Your task to perform on an android device: Search for asus rog on amazon, select the first entry, add it to the cart, then select checkout. Image 0: 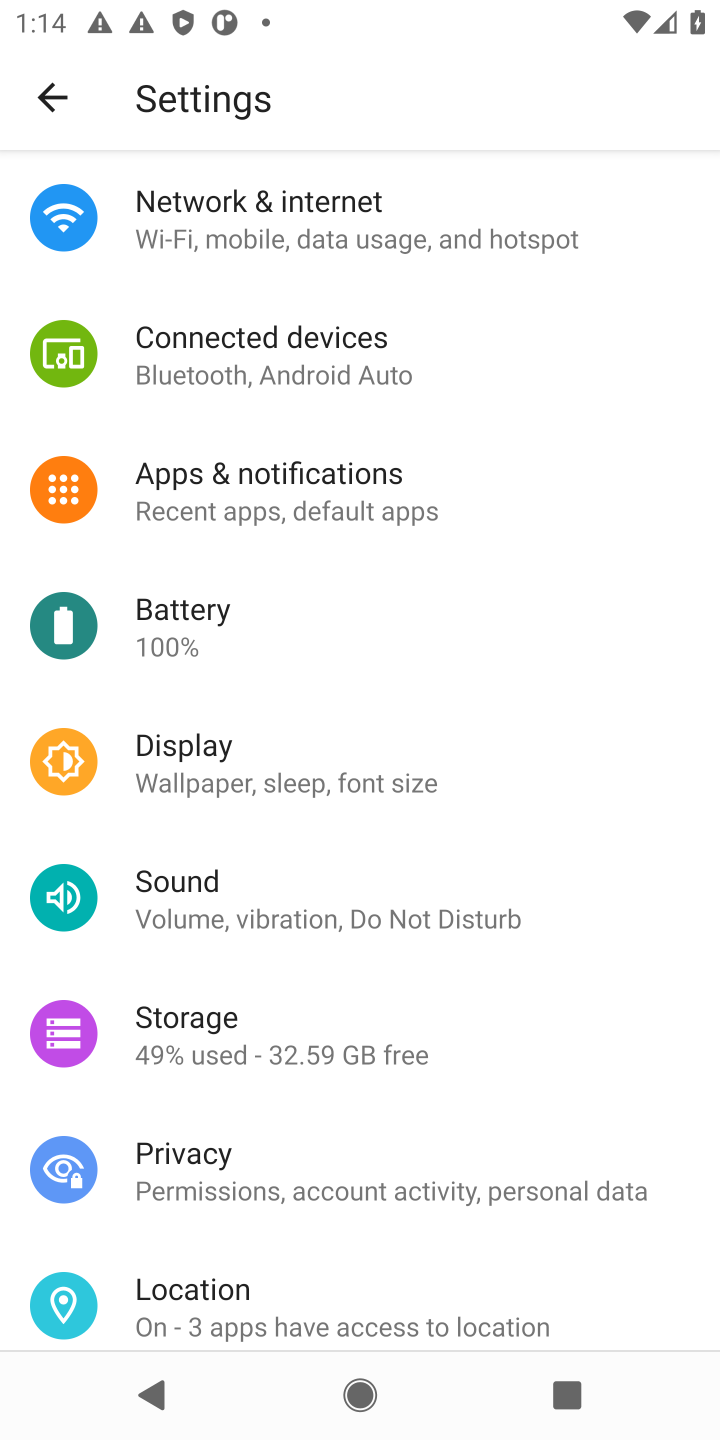
Step 0: press home button
Your task to perform on an android device: Search for asus rog on amazon, select the first entry, add it to the cart, then select checkout. Image 1: 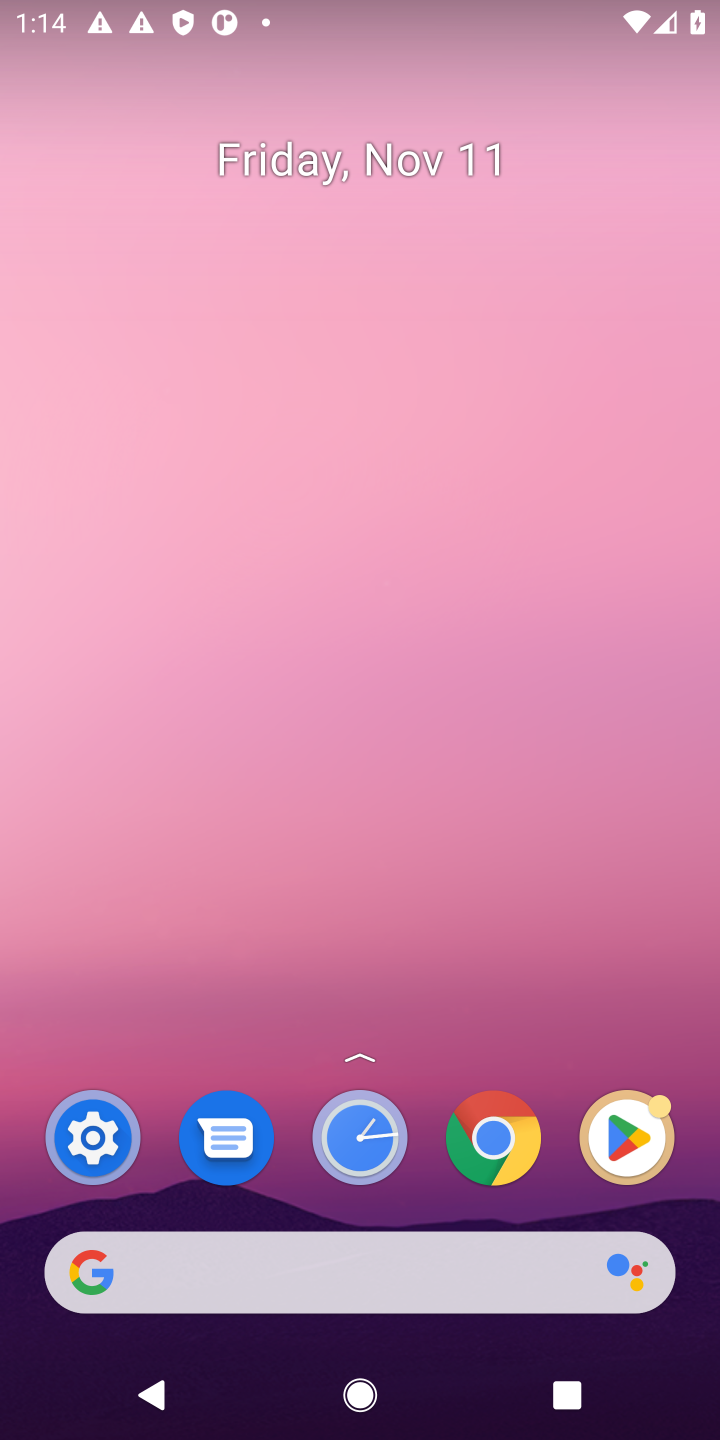
Step 1: click (501, 1125)
Your task to perform on an android device: Search for asus rog on amazon, select the first entry, add it to the cart, then select checkout. Image 2: 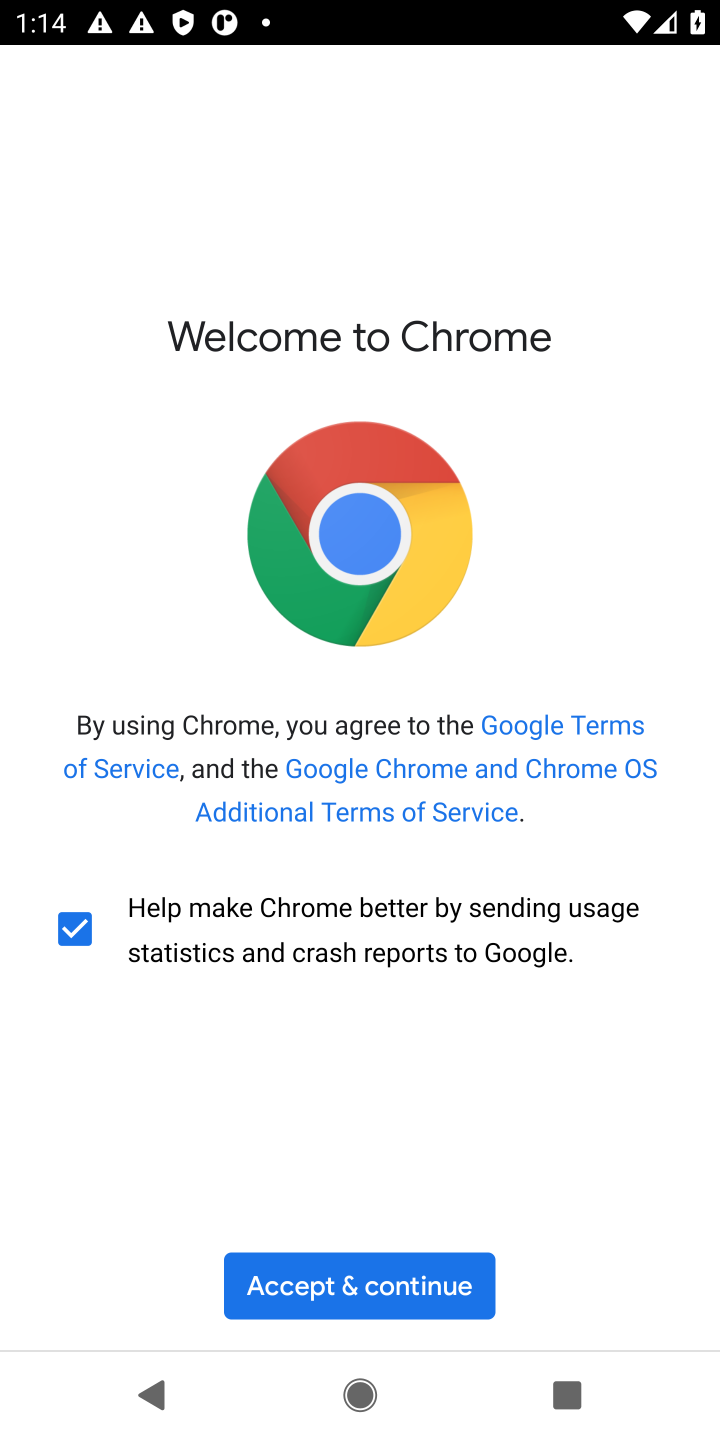
Step 2: click (376, 1264)
Your task to perform on an android device: Search for asus rog on amazon, select the first entry, add it to the cart, then select checkout. Image 3: 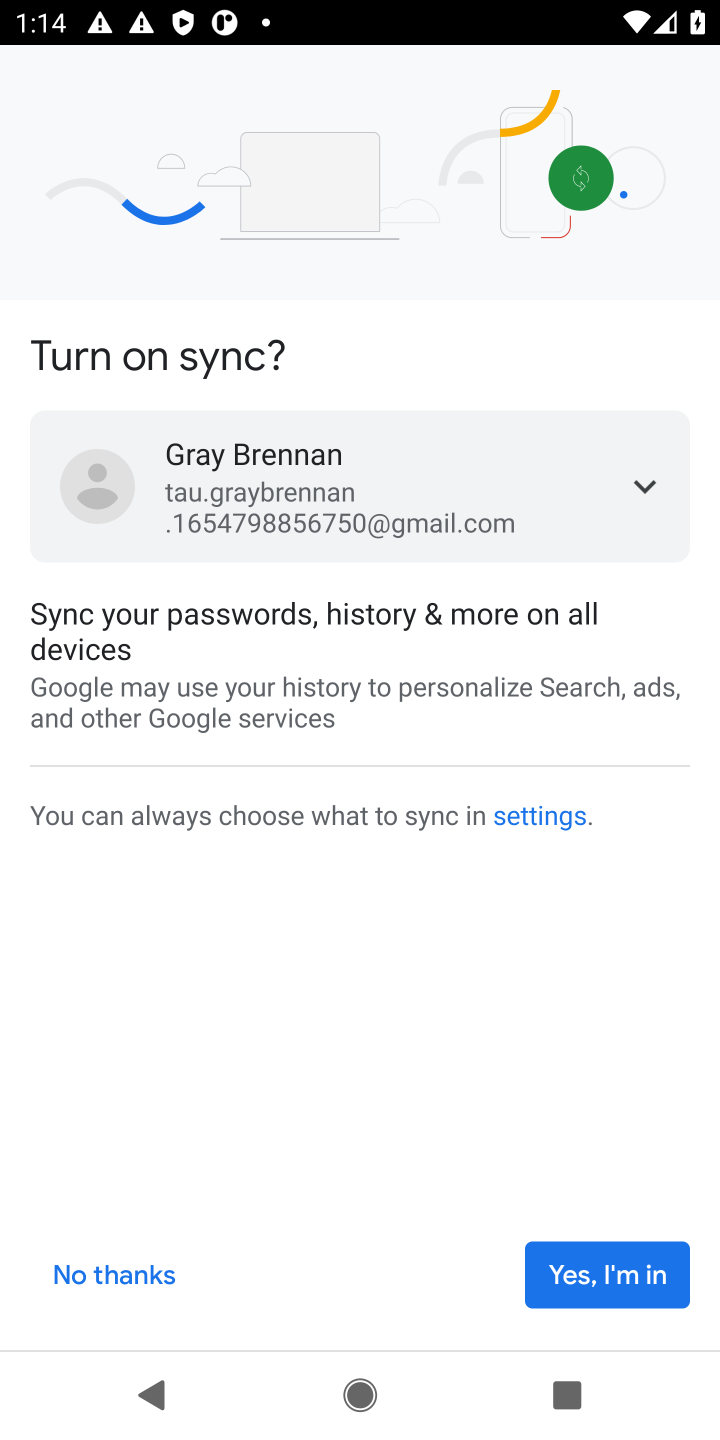
Step 3: click (604, 1279)
Your task to perform on an android device: Search for asus rog on amazon, select the first entry, add it to the cart, then select checkout. Image 4: 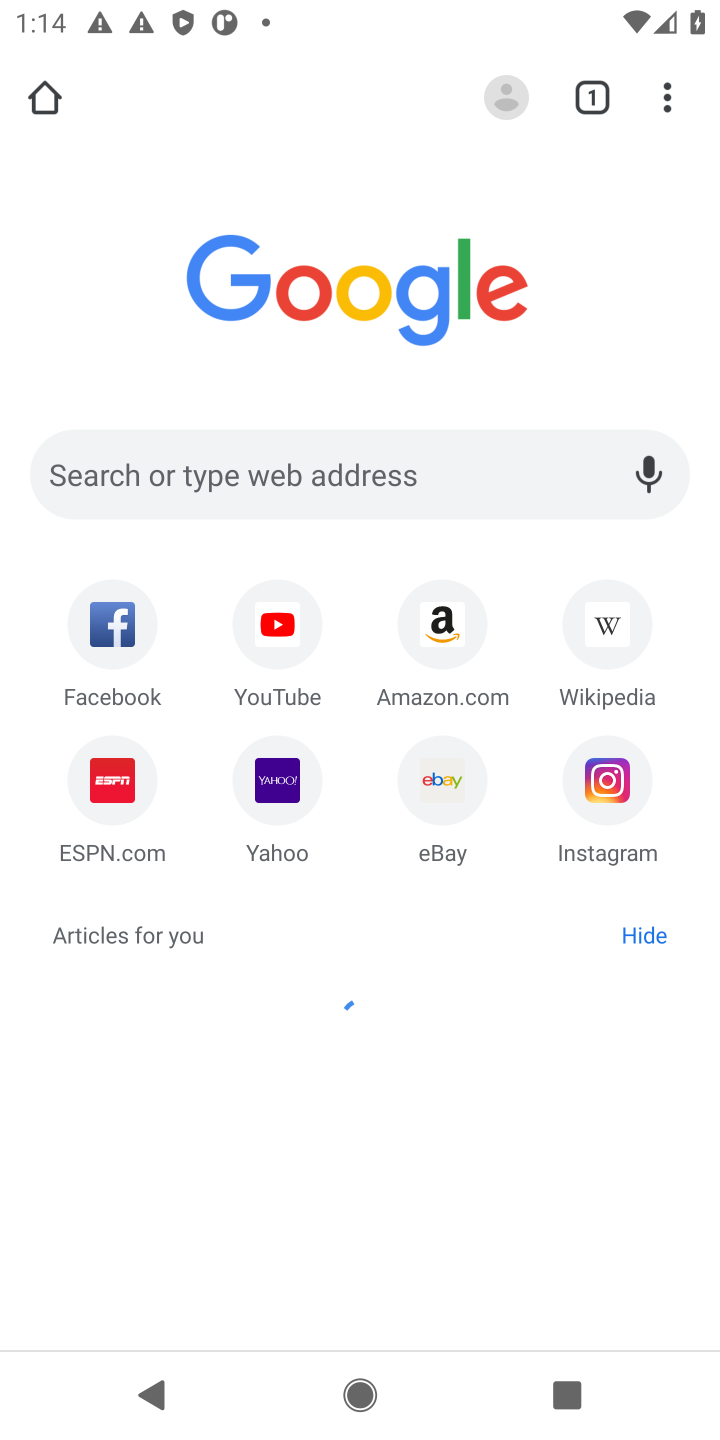
Step 4: click (436, 621)
Your task to perform on an android device: Search for asus rog on amazon, select the first entry, add it to the cart, then select checkout. Image 5: 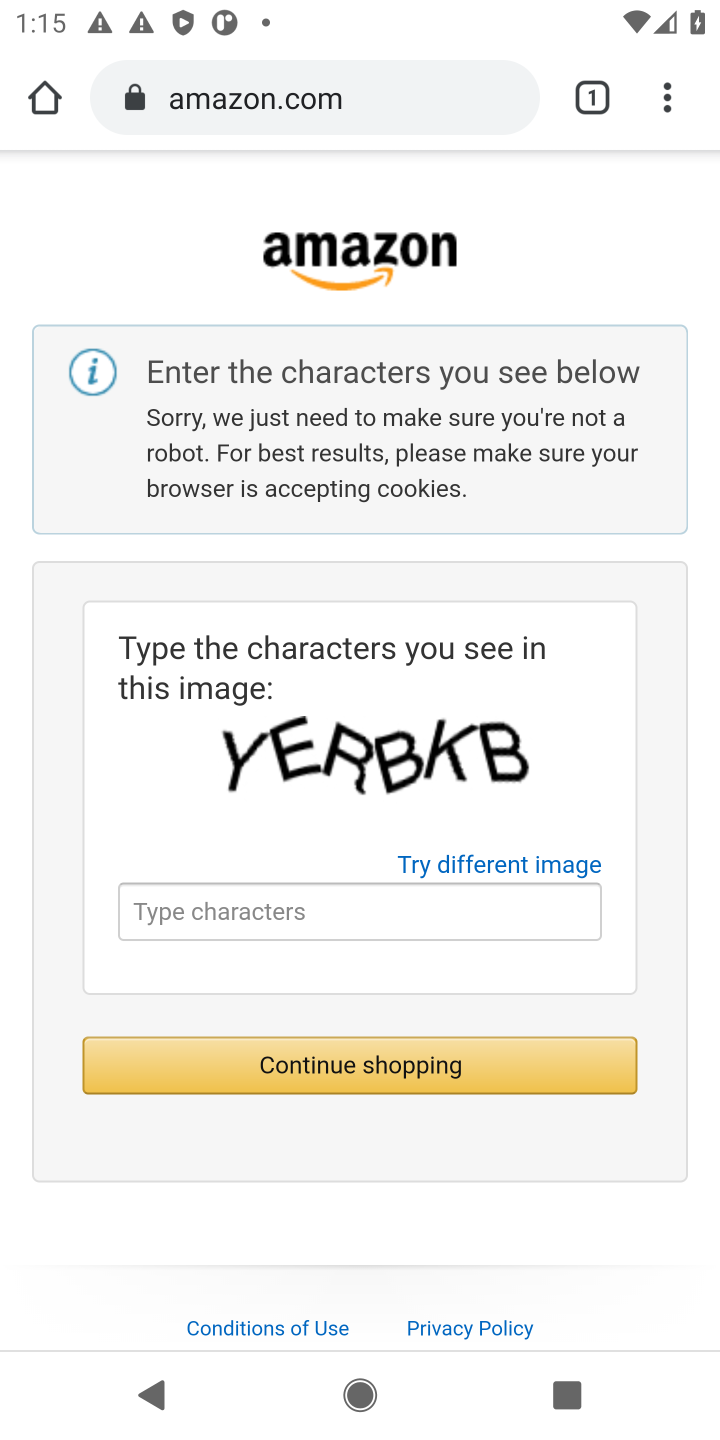
Step 5: click (304, 897)
Your task to perform on an android device: Search for asus rog on amazon, select the first entry, add it to the cart, then select checkout. Image 6: 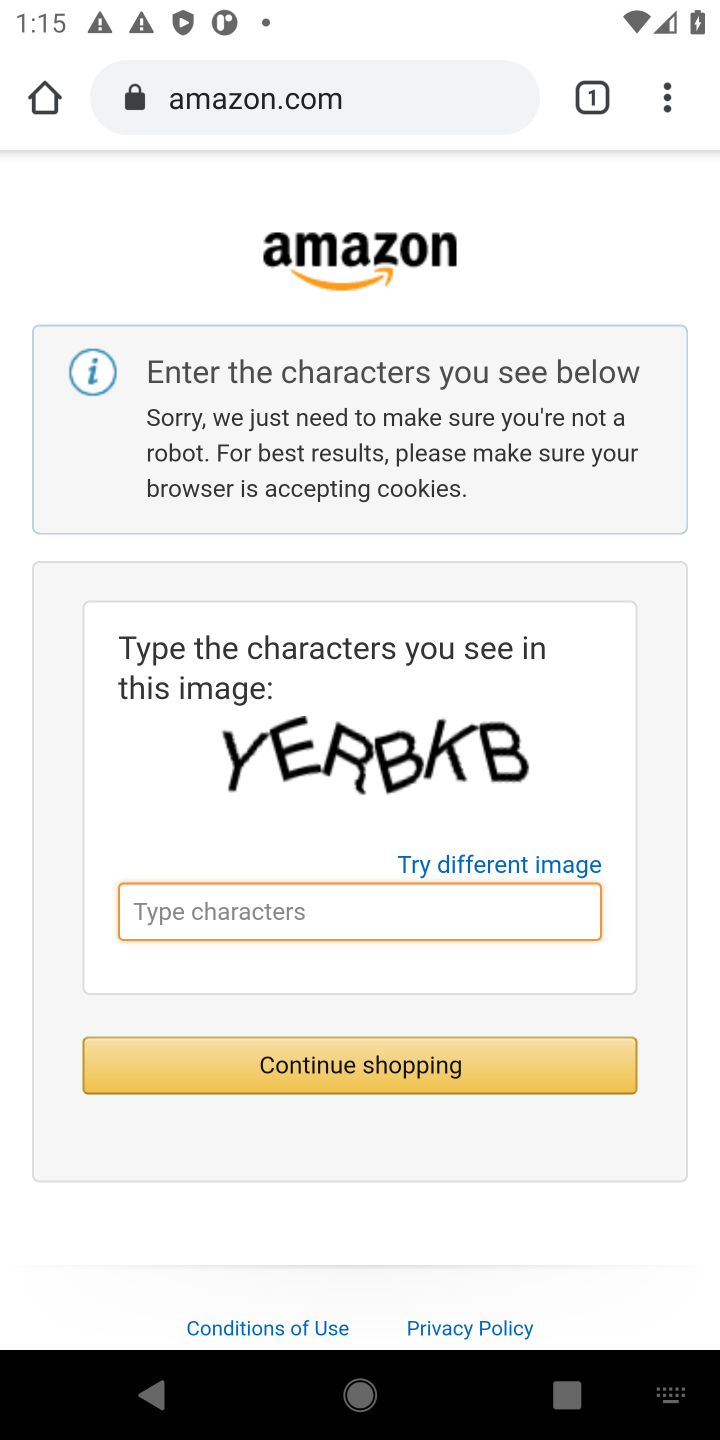
Step 6: type "YERBKB"
Your task to perform on an android device: Search for asus rog on amazon, select the first entry, add it to the cart, then select checkout. Image 7: 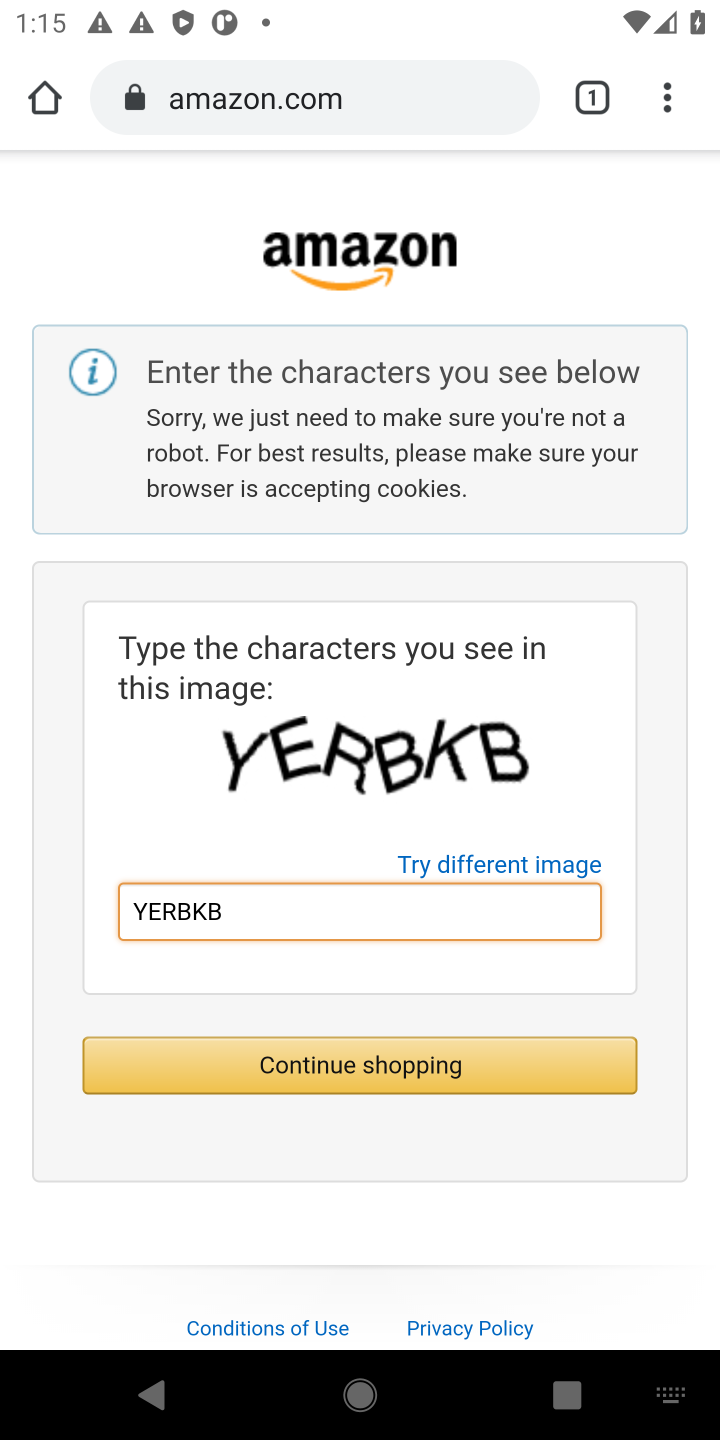
Step 7: click (411, 1067)
Your task to perform on an android device: Search for asus rog on amazon, select the first entry, add it to the cart, then select checkout. Image 8: 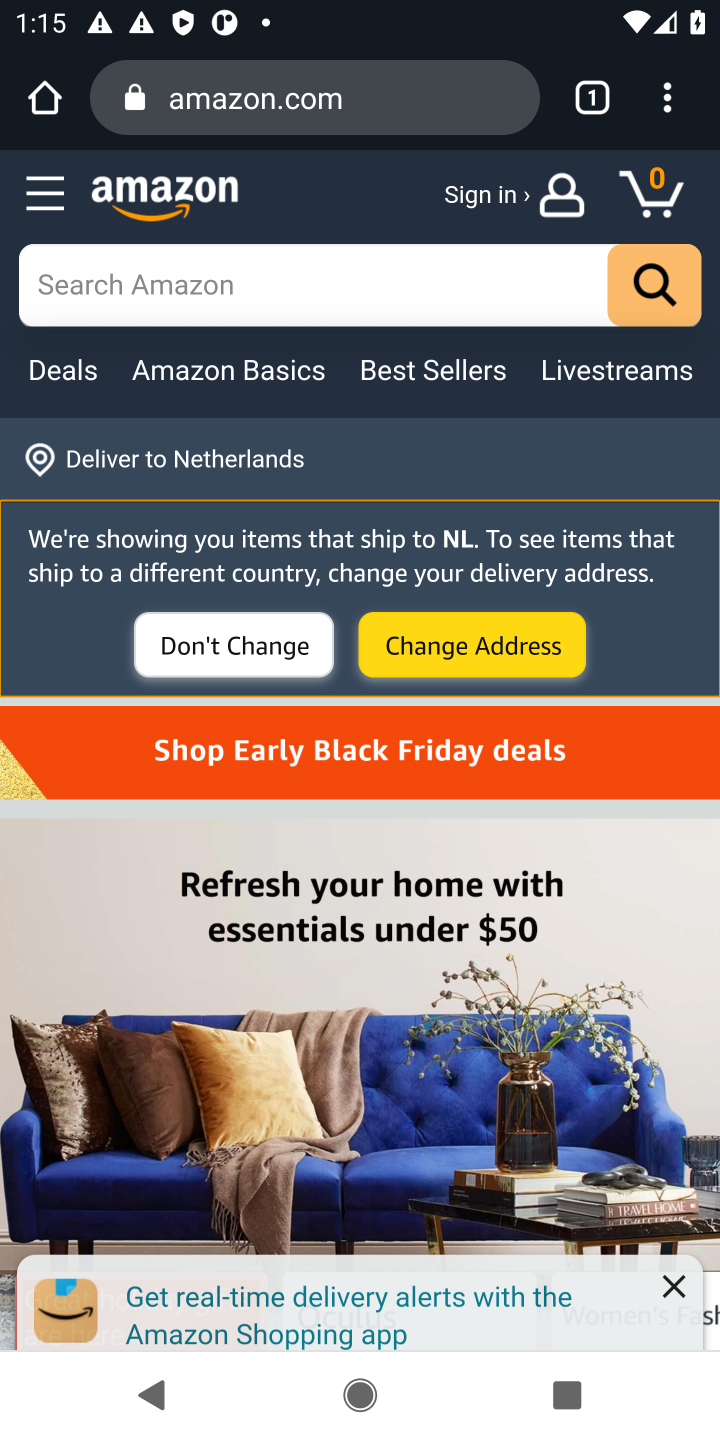
Step 8: click (249, 289)
Your task to perform on an android device: Search for asus rog on amazon, select the first entry, add it to the cart, then select checkout. Image 9: 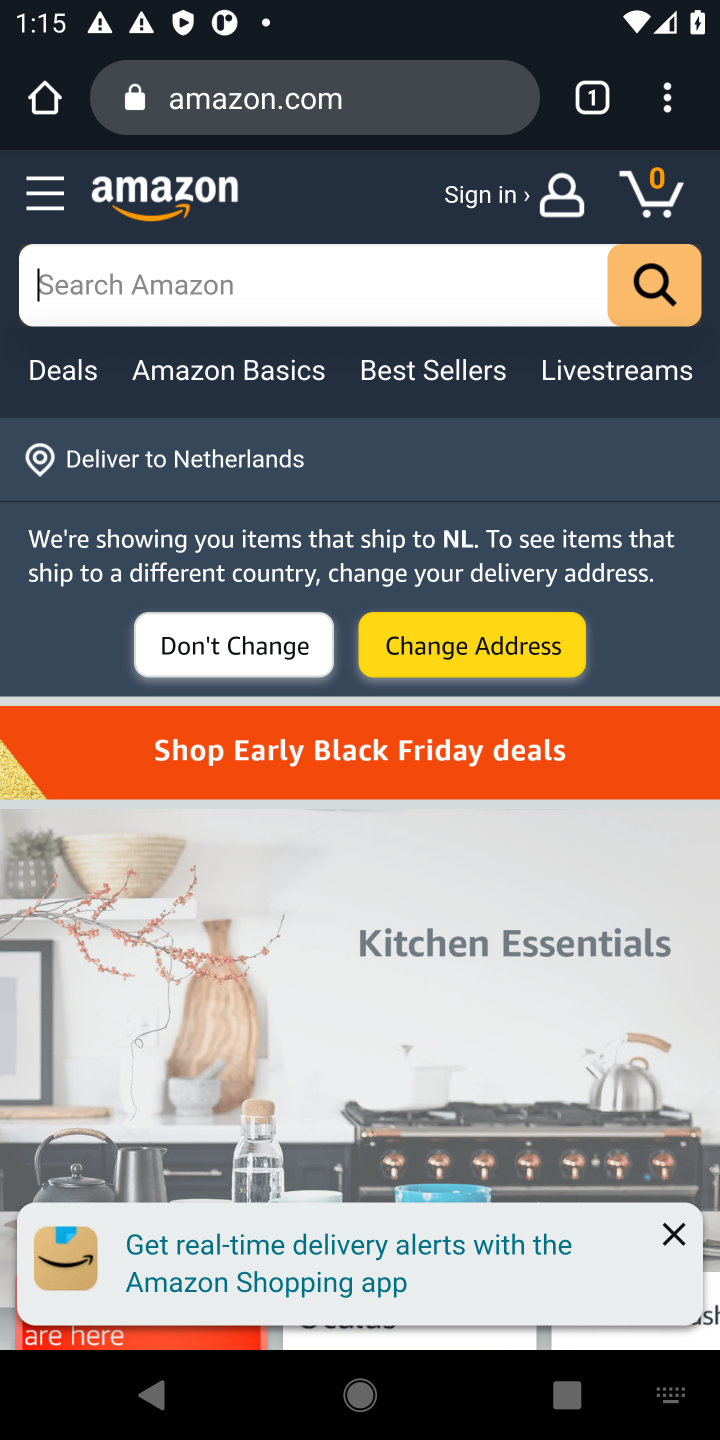
Step 9: type "asus rog"
Your task to perform on an android device: Search for asus rog on amazon, select the first entry, add it to the cart, then select checkout. Image 10: 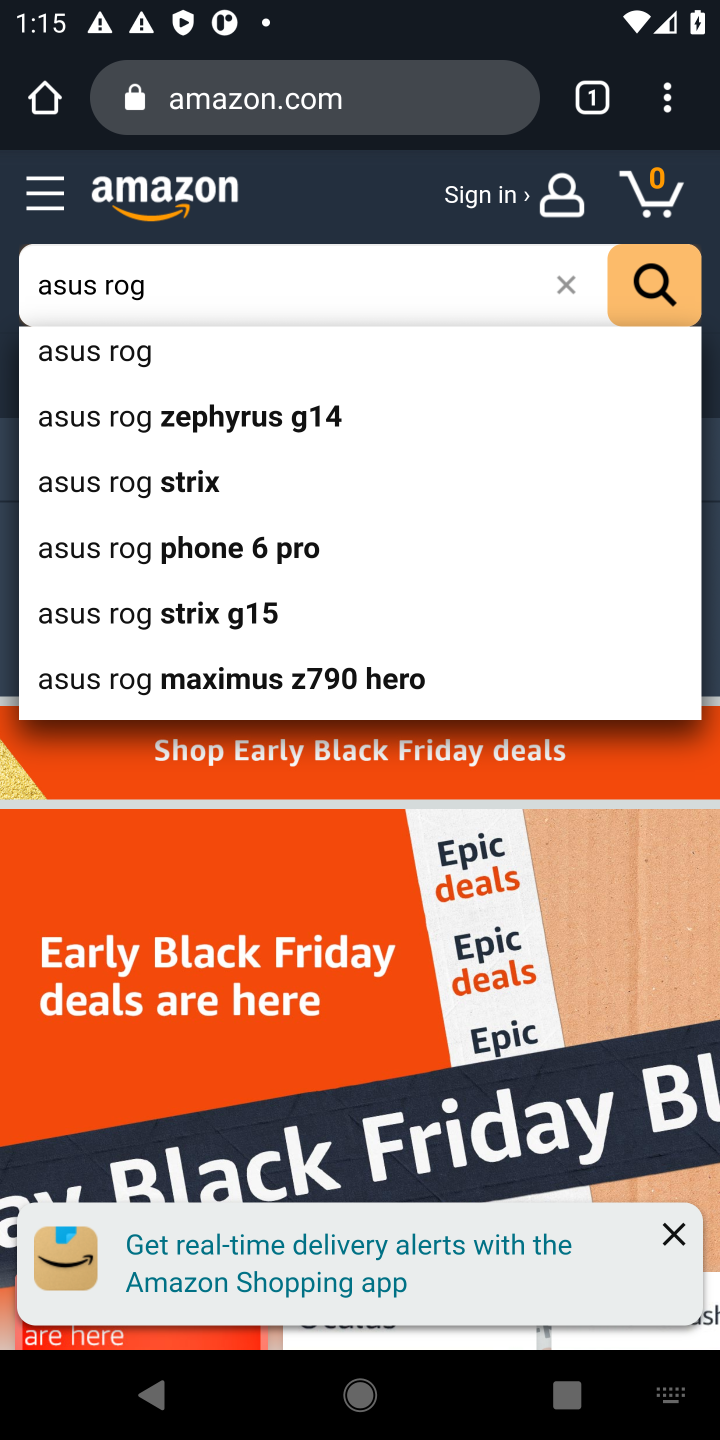
Step 10: click (77, 346)
Your task to perform on an android device: Search for asus rog on amazon, select the first entry, add it to the cart, then select checkout. Image 11: 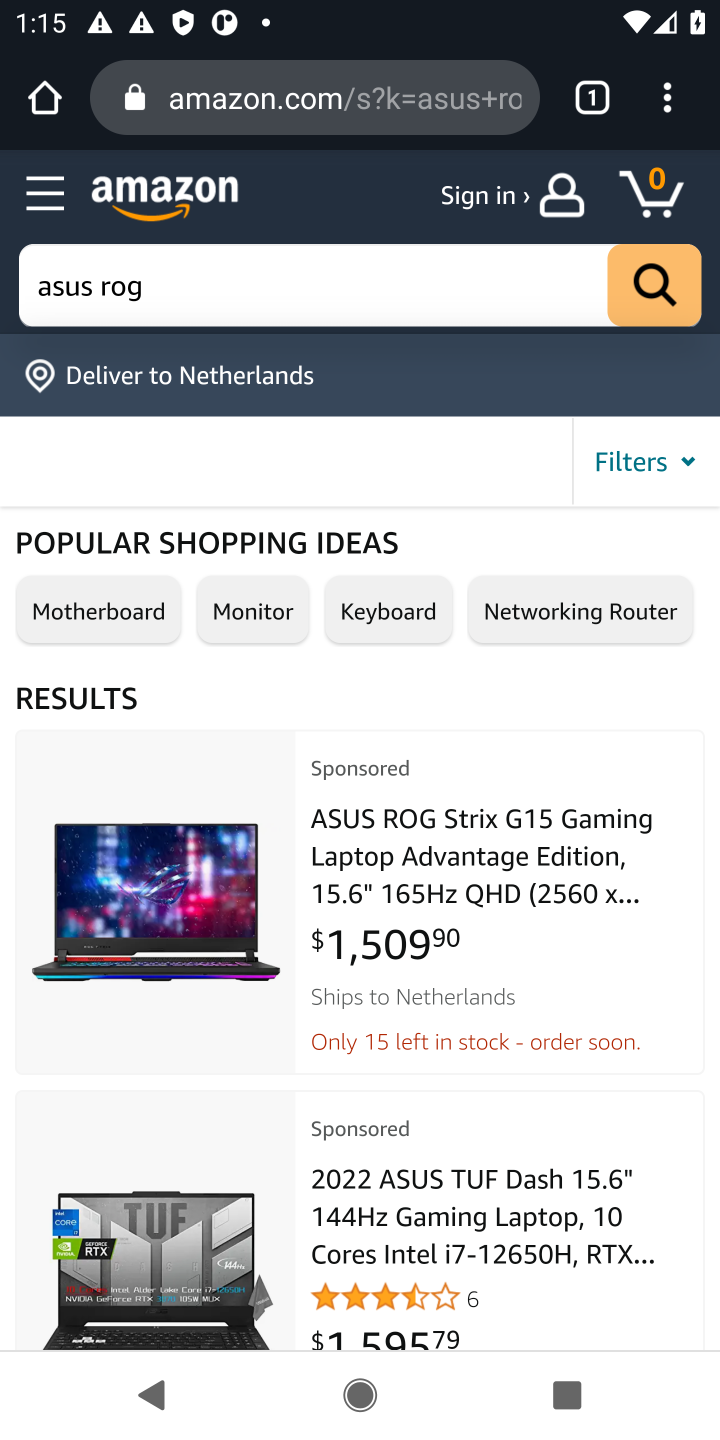
Step 11: click (448, 835)
Your task to perform on an android device: Search for asus rog on amazon, select the first entry, add it to the cart, then select checkout. Image 12: 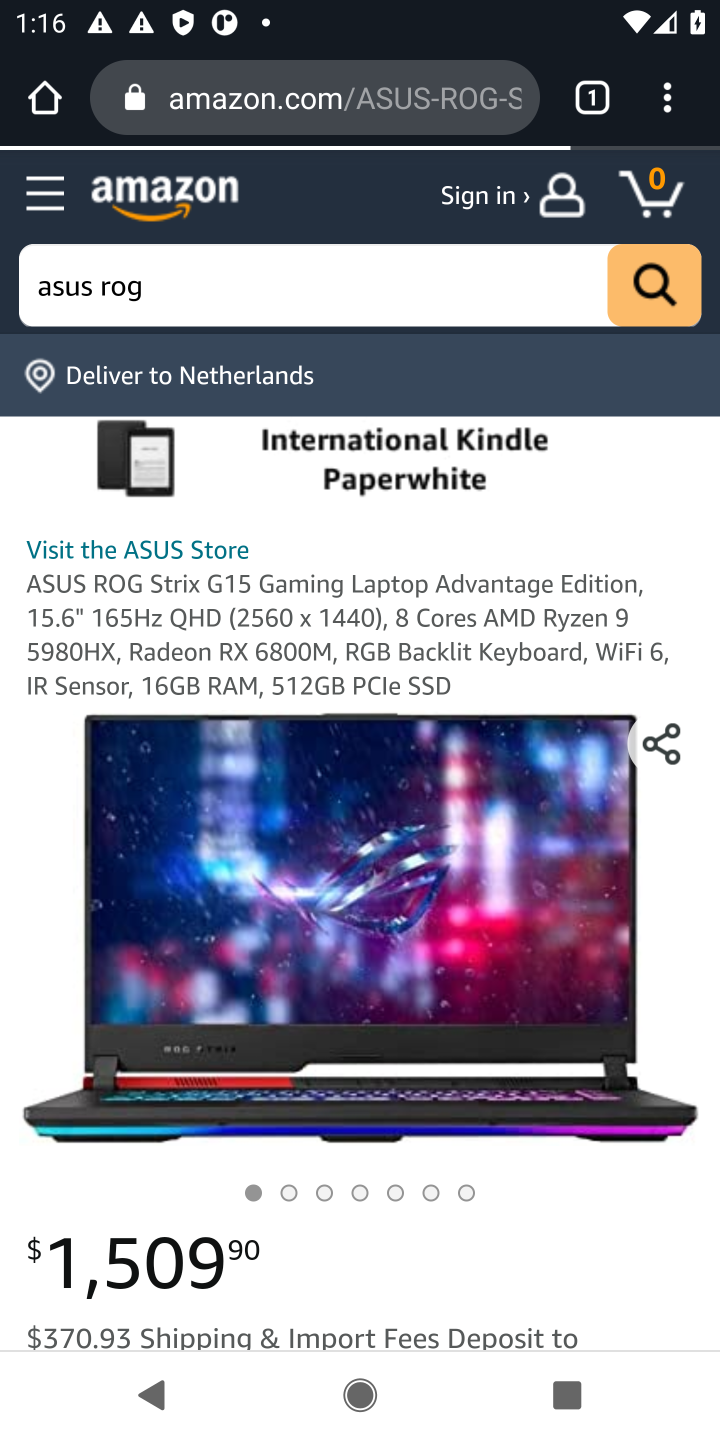
Step 12: drag from (357, 1246) to (535, 308)
Your task to perform on an android device: Search for asus rog on amazon, select the first entry, add it to the cart, then select checkout. Image 13: 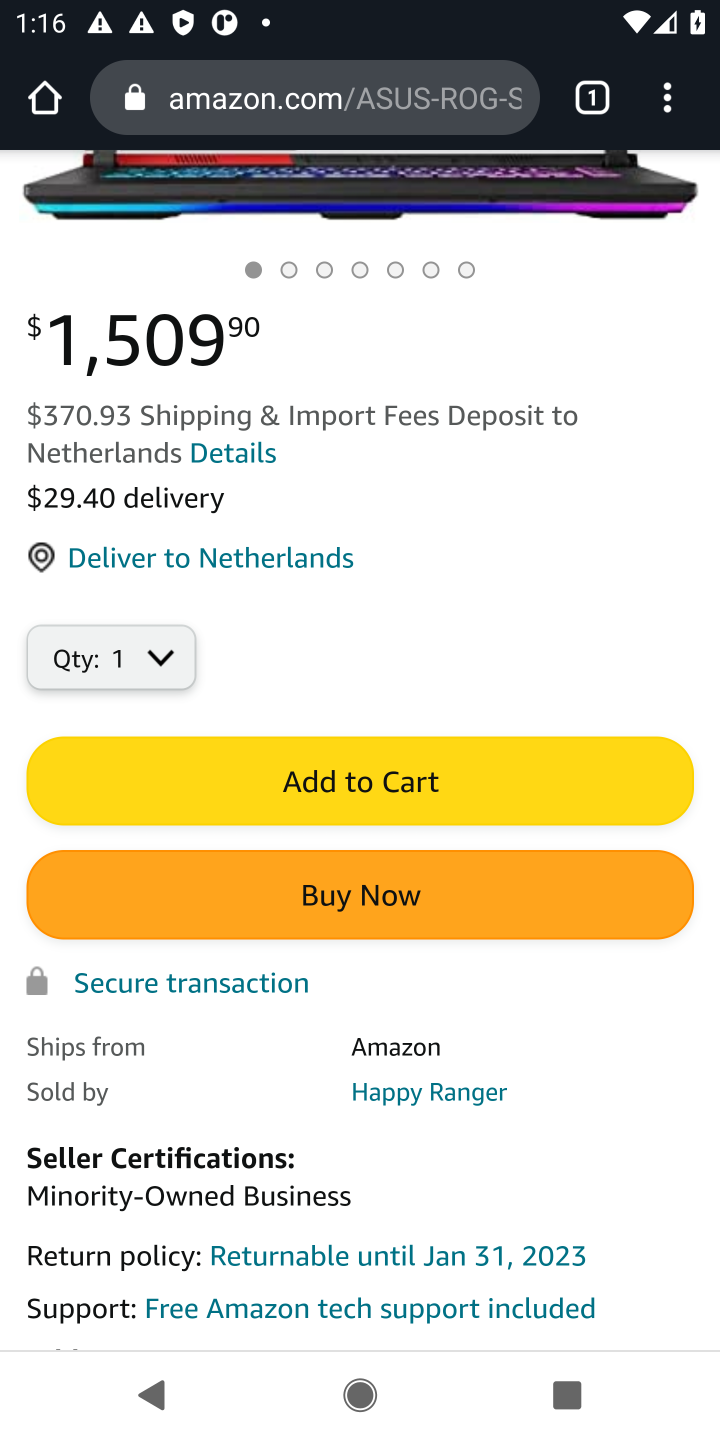
Step 13: click (478, 767)
Your task to perform on an android device: Search for asus rog on amazon, select the first entry, add it to the cart, then select checkout. Image 14: 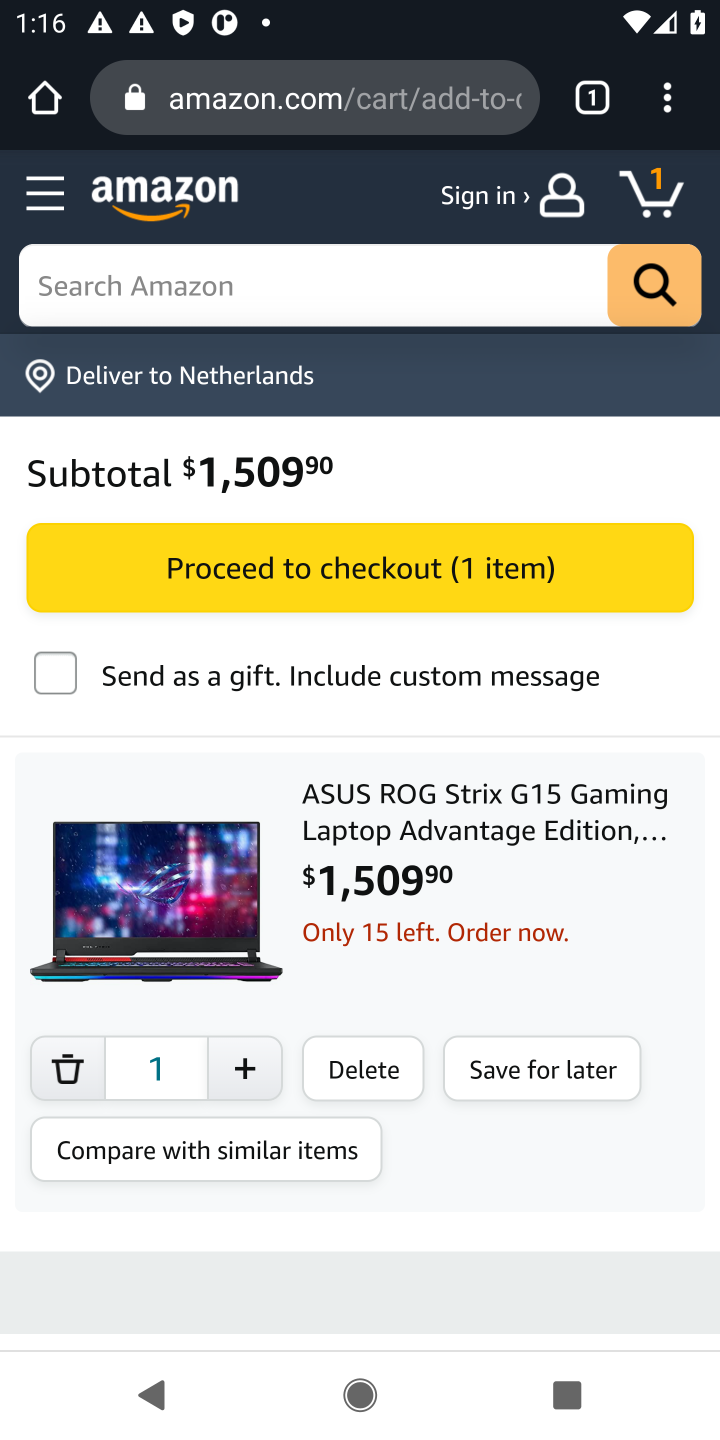
Step 14: click (444, 560)
Your task to perform on an android device: Search for asus rog on amazon, select the first entry, add it to the cart, then select checkout. Image 15: 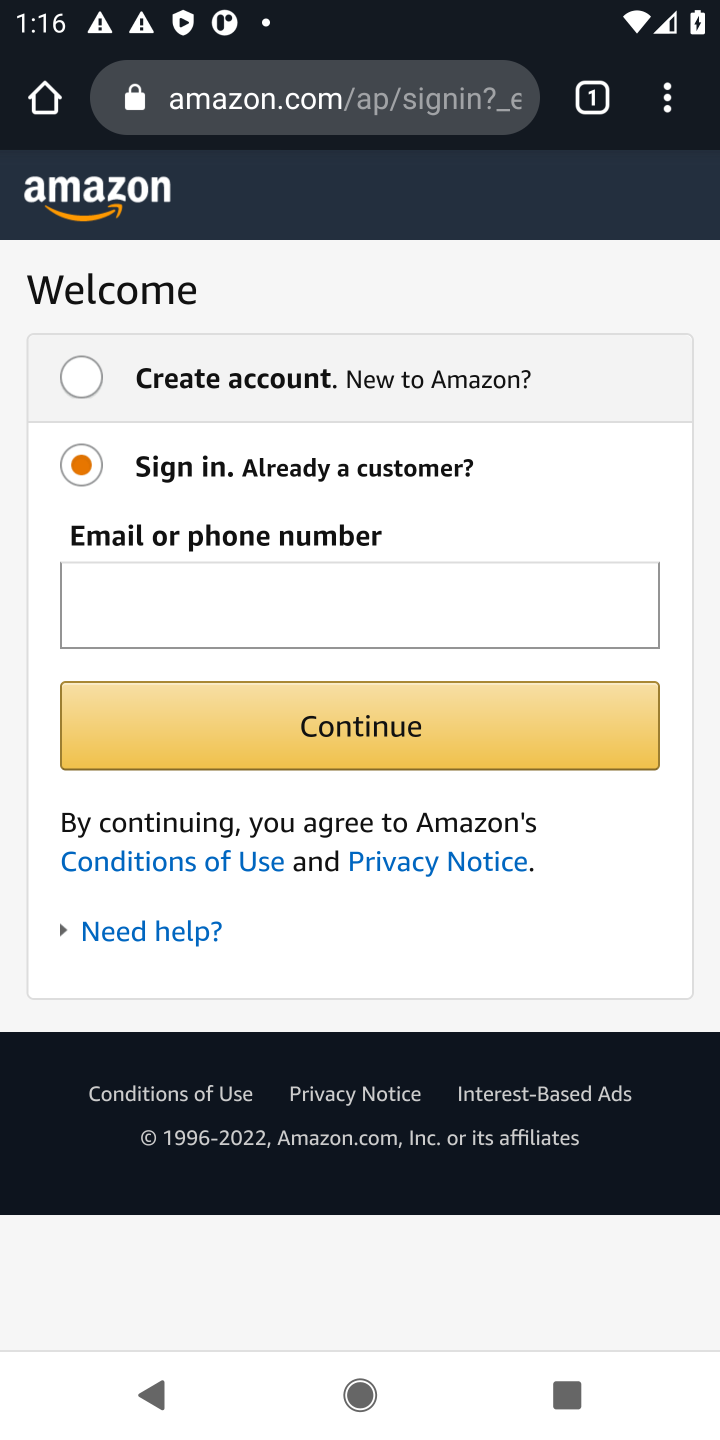
Step 15: task complete